Your task to perform on an android device: add a contact in the contacts app Image 0: 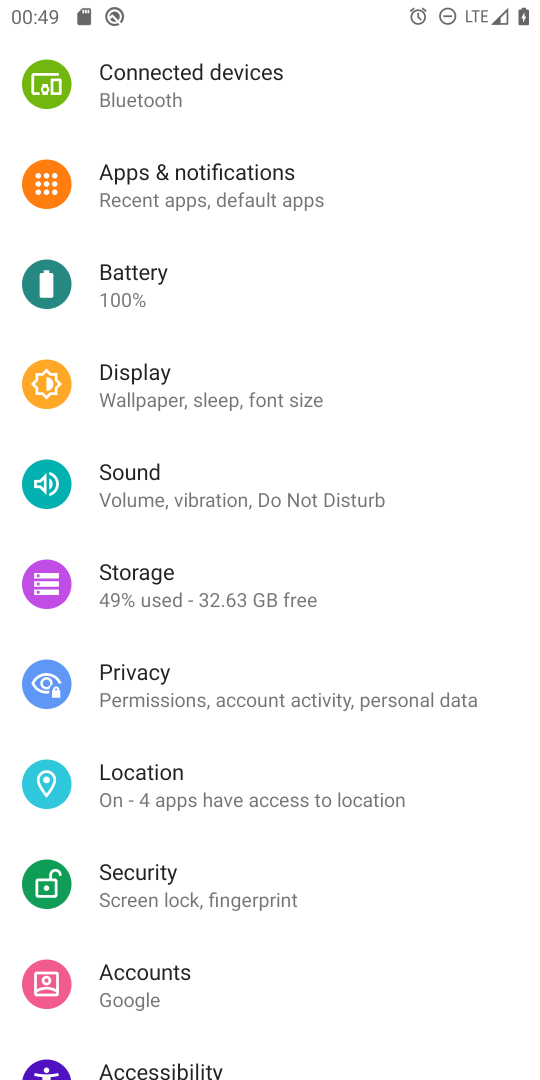
Step 0: press home button
Your task to perform on an android device: add a contact in the contacts app Image 1: 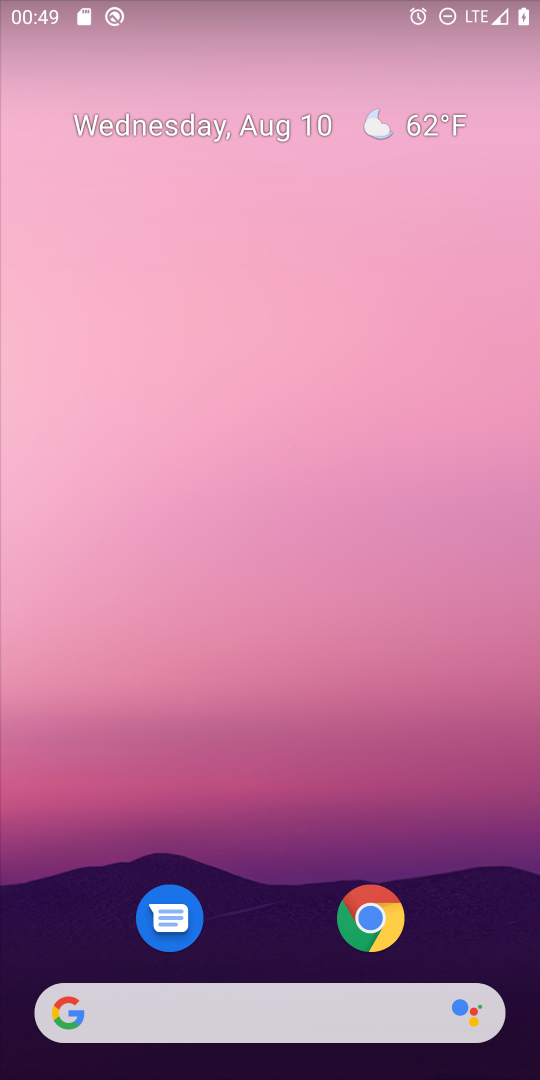
Step 1: drag from (239, 885) to (305, 5)
Your task to perform on an android device: add a contact in the contacts app Image 2: 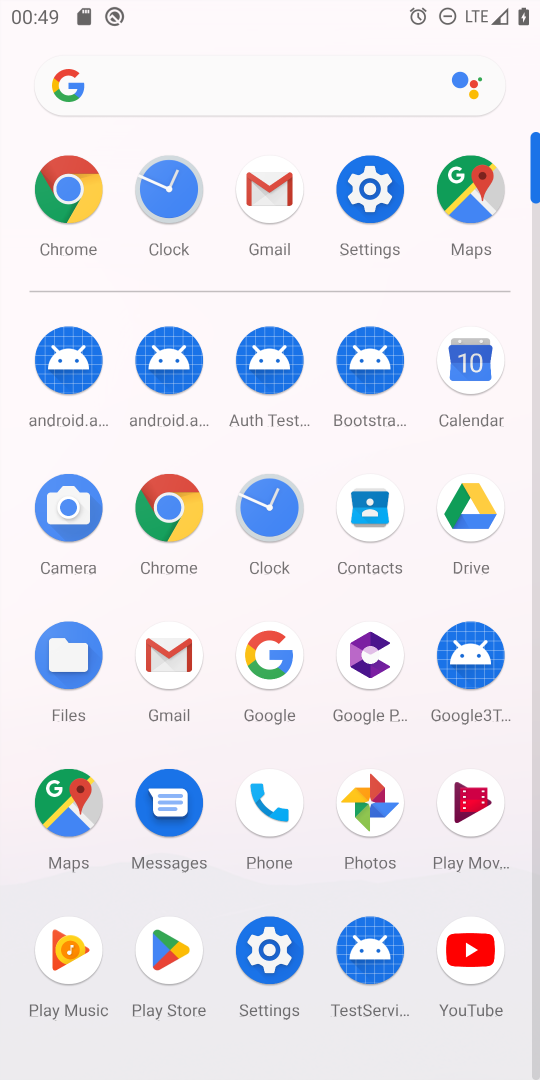
Step 2: click (373, 495)
Your task to perform on an android device: add a contact in the contacts app Image 3: 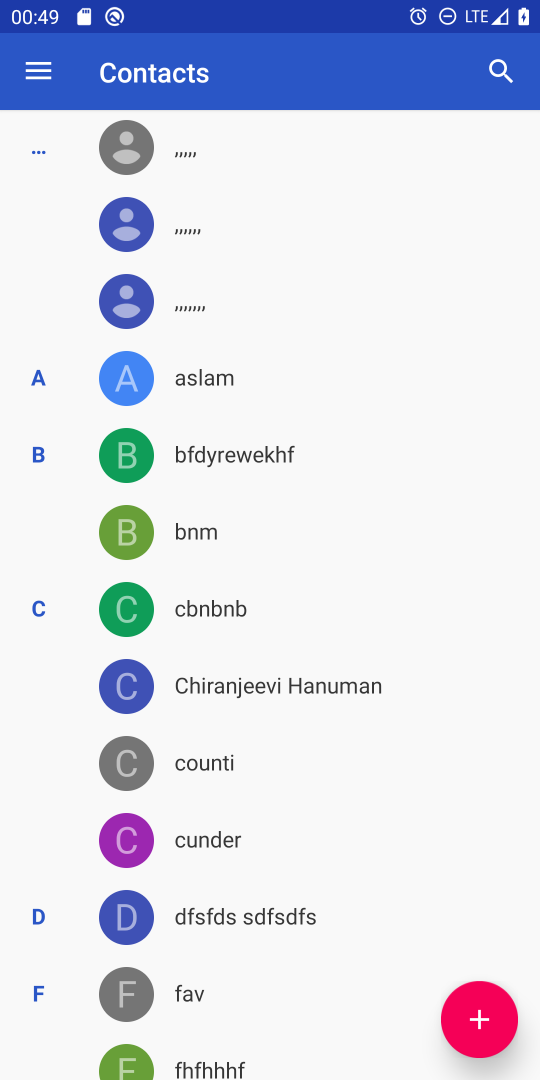
Step 3: click (477, 1025)
Your task to perform on an android device: add a contact in the contacts app Image 4: 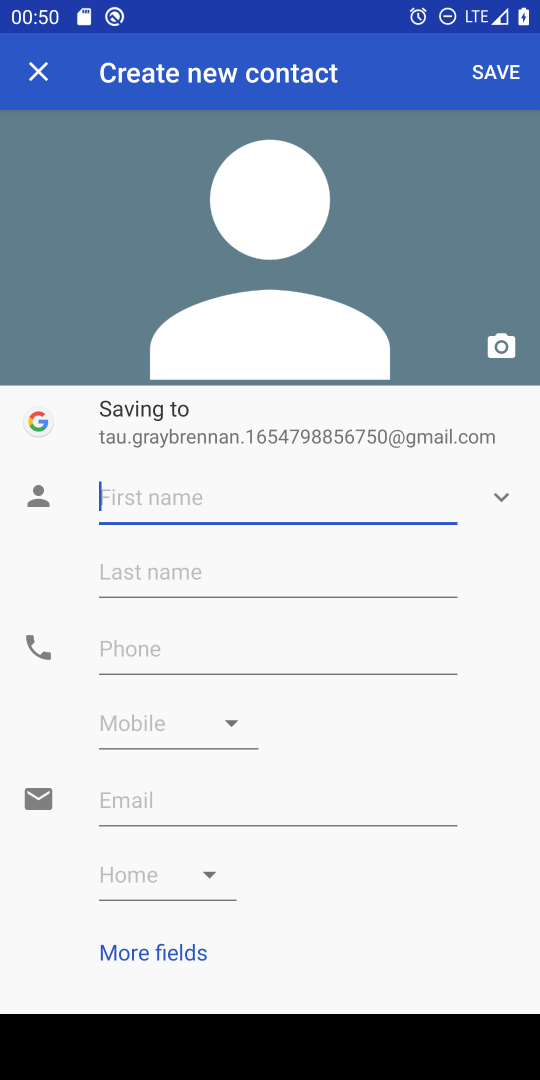
Step 4: type "uyuyu"
Your task to perform on an android device: add a contact in the contacts app Image 5: 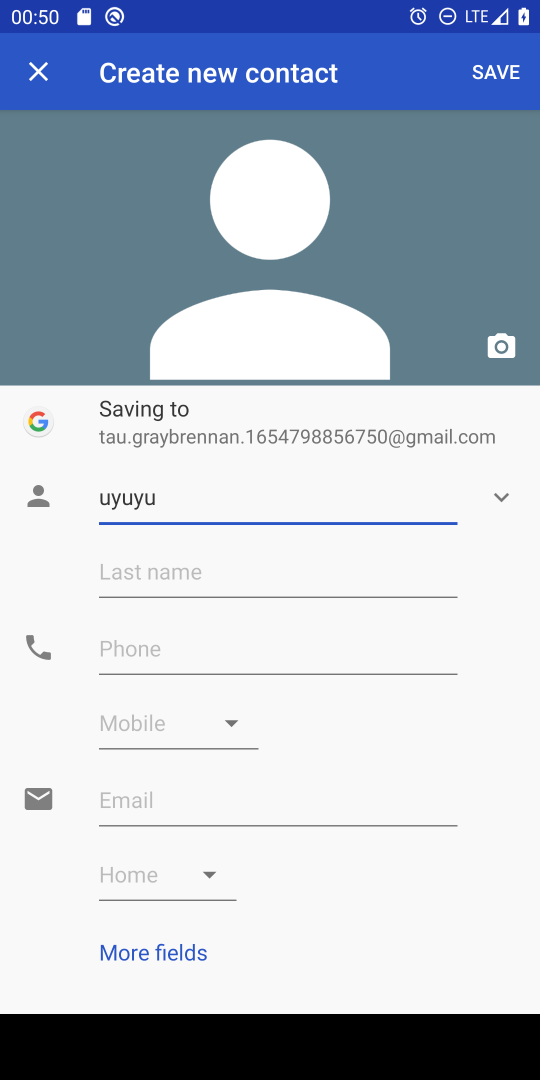
Step 5: click (495, 66)
Your task to perform on an android device: add a contact in the contacts app Image 6: 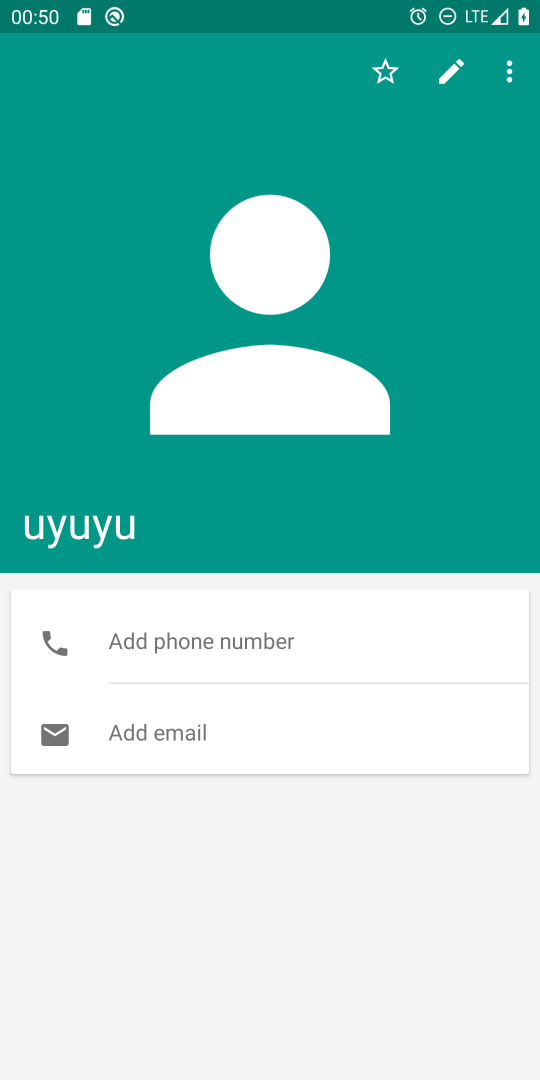
Step 6: task complete